Your task to perform on an android device: Open Chrome and go to settings Image 0: 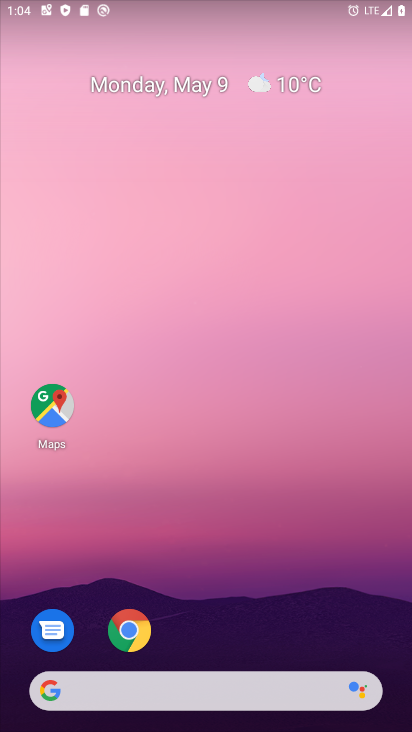
Step 0: drag from (350, 592) to (291, 20)
Your task to perform on an android device: Open Chrome and go to settings Image 1: 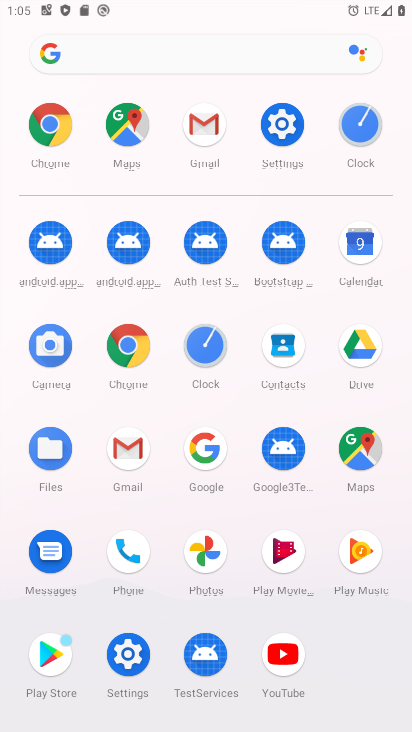
Step 1: click (135, 350)
Your task to perform on an android device: Open Chrome and go to settings Image 2: 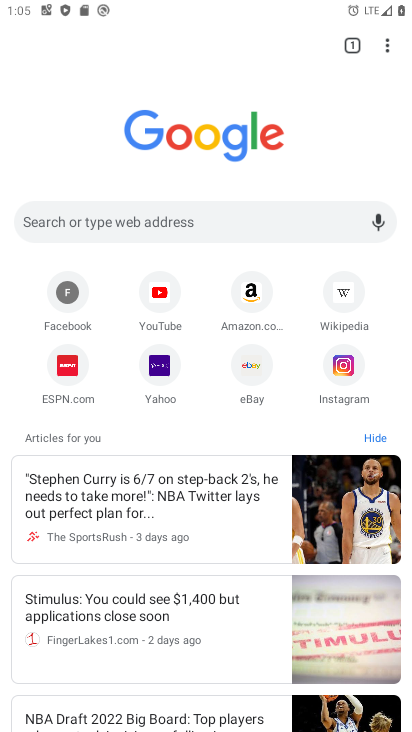
Step 2: click (387, 44)
Your task to perform on an android device: Open Chrome and go to settings Image 3: 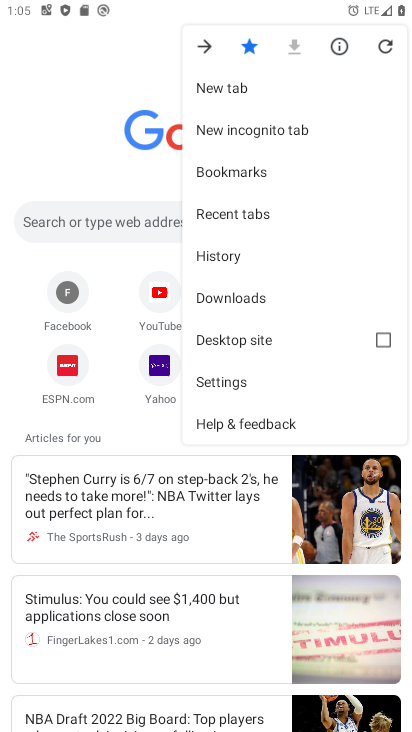
Step 3: click (283, 384)
Your task to perform on an android device: Open Chrome and go to settings Image 4: 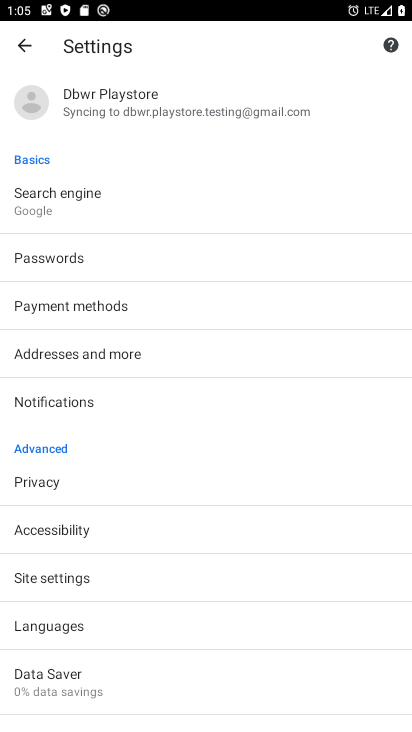
Step 4: task complete